Your task to perform on an android device: Open battery settings Image 0: 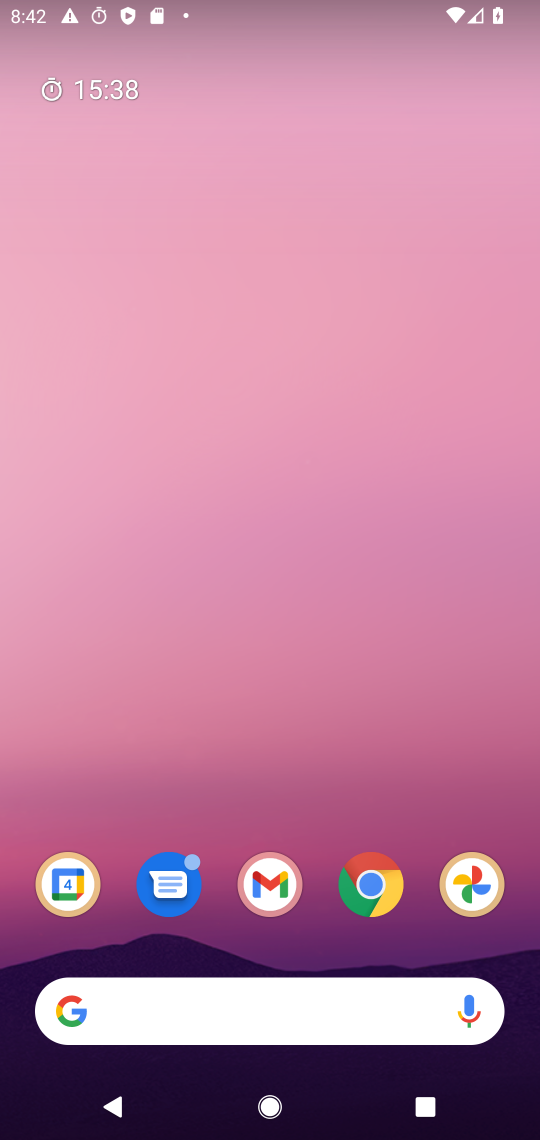
Step 0: press home button
Your task to perform on an android device: Open battery settings Image 1: 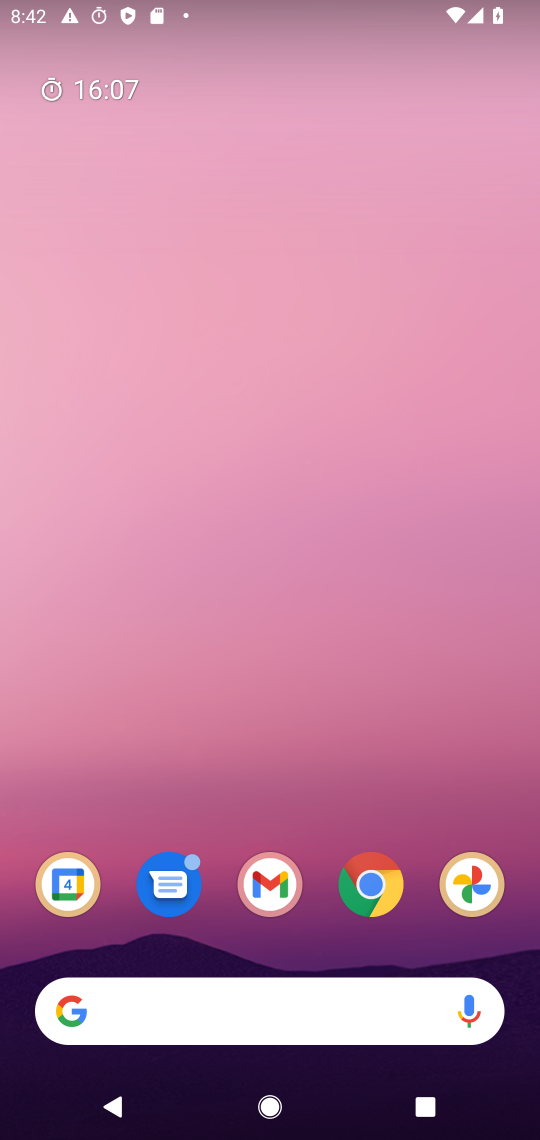
Step 1: drag from (241, 862) to (331, 58)
Your task to perform on an android device: Open battery settings Image 2: 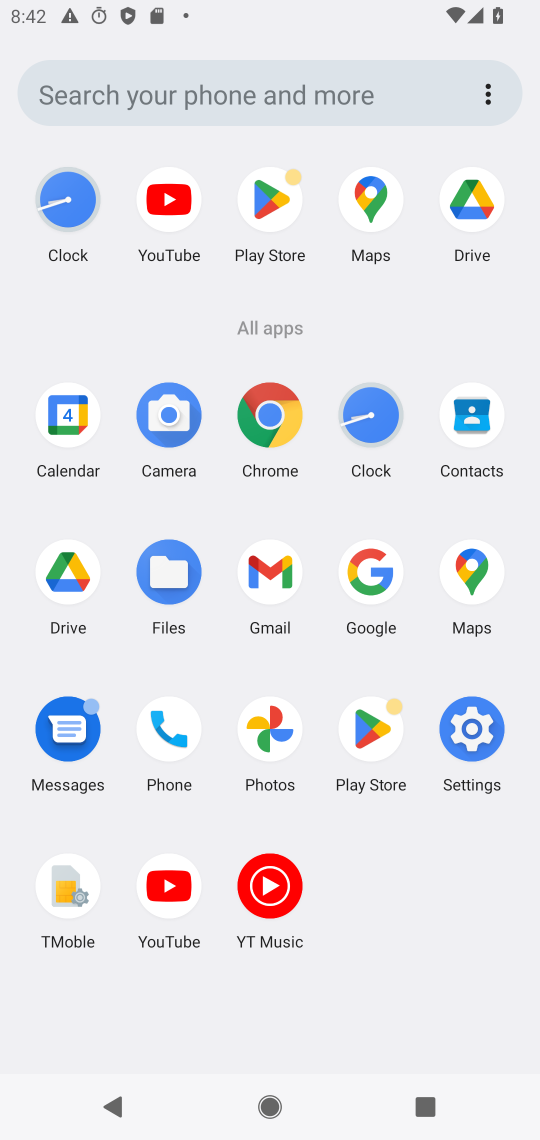
Step 2: click (484, 729)
Your task to perform on an android device: Open battery settings Image 3: 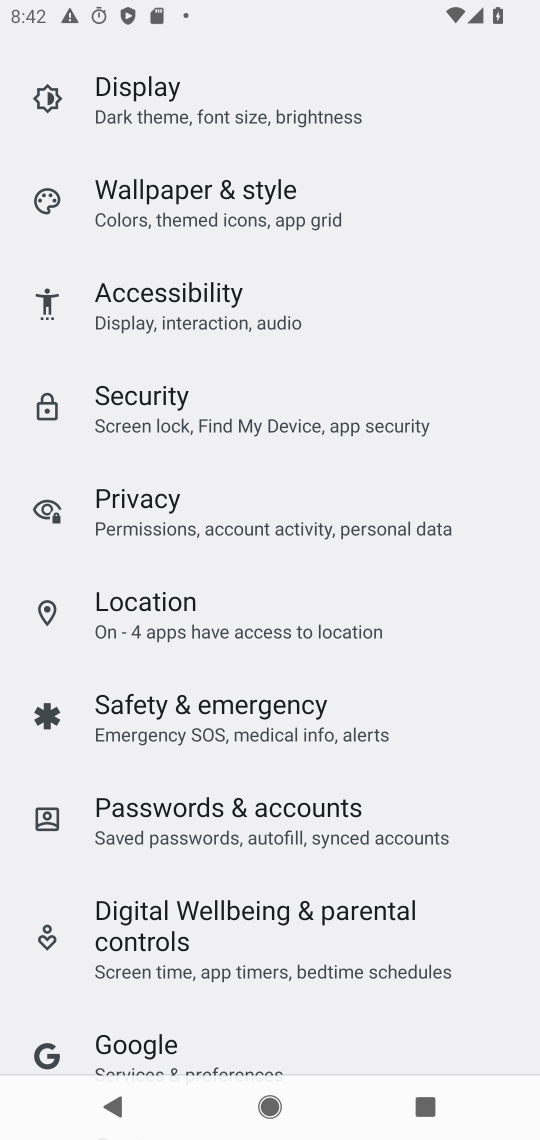
Step 3: drag from (467, 744) to (483, 168)
Your task to perform on an android device: Open battery settings Image 4: 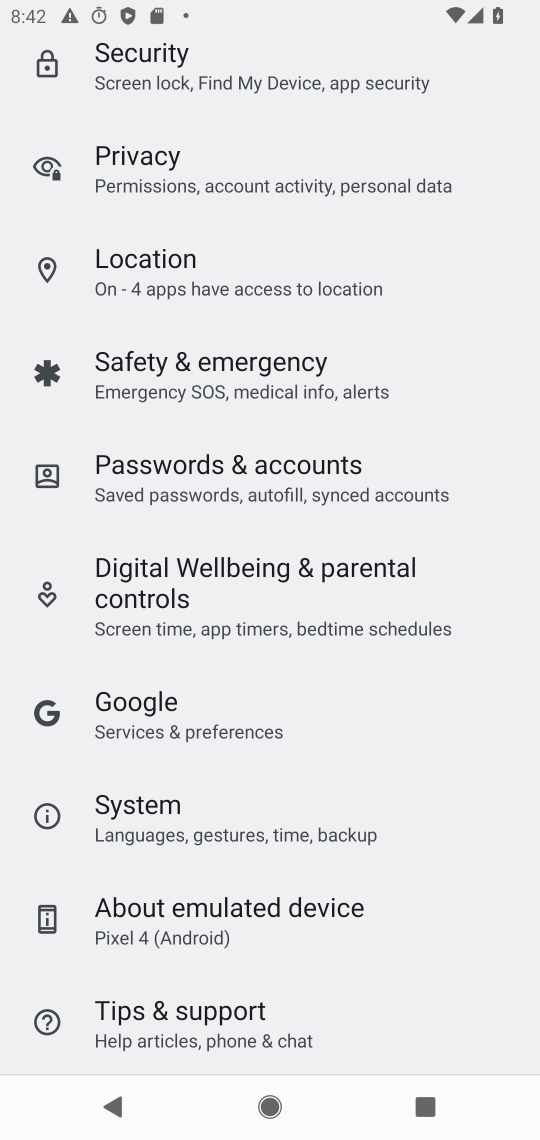
Step 4: drag from (413, 729) to (484, 266)
Your task to perform on an android device: Open battery settings Image 5: 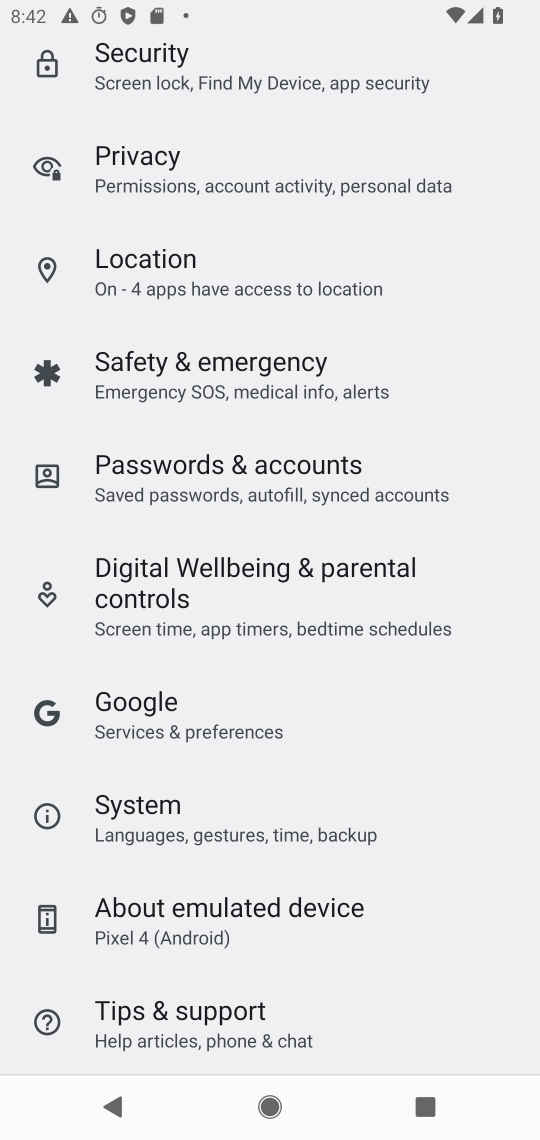
Step 5: drag from (471, 219) to (278, 1033)
Your task to perform on an android device: Open battery settings Image 6: 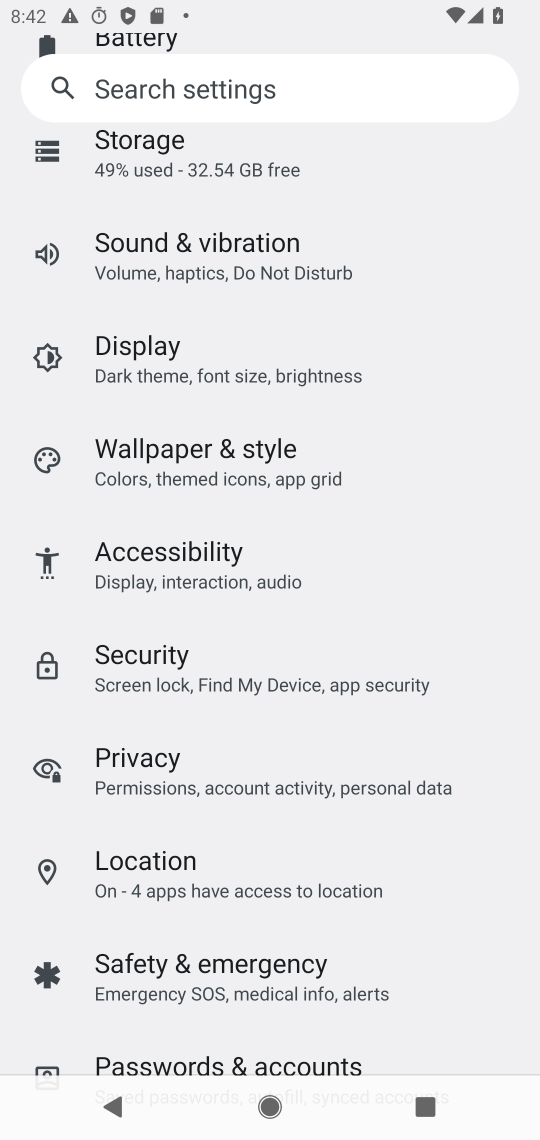
Step 6: drag from (435, 195) to (344, 757)
Your task to perform on an android device: Open battery settings Image 7: 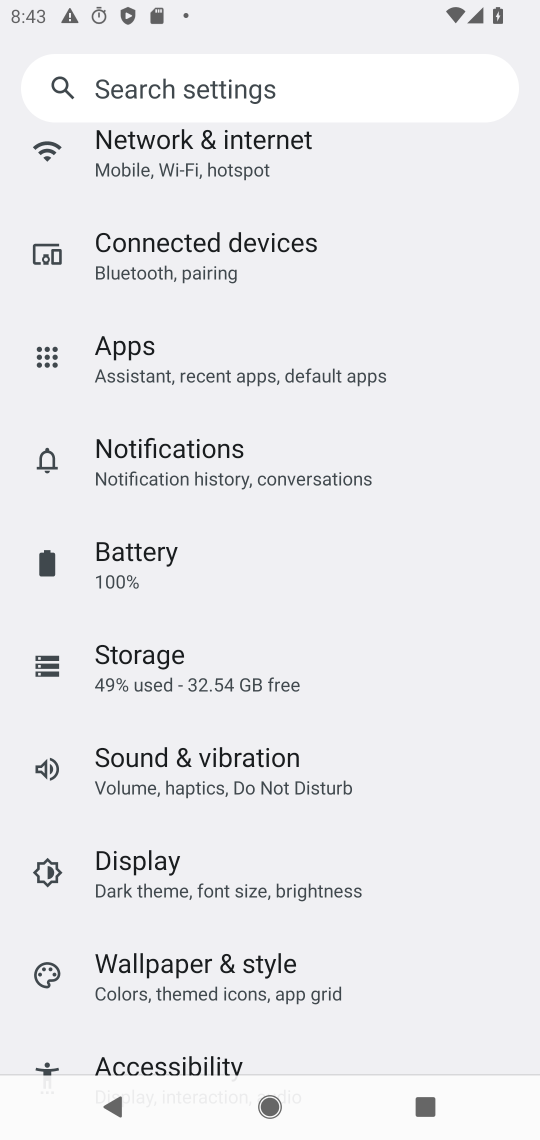
Step 7: click (143, 565)
Your task to perform on an android device: Open battery settings Image 8: 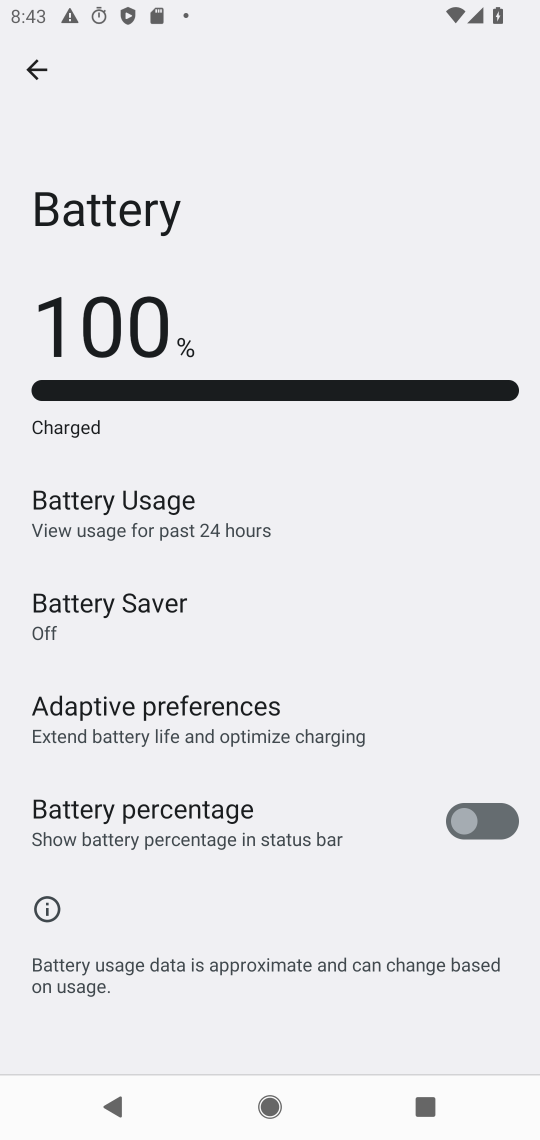
Step 8: task complete